Your task to perform on an android device: When is my next meeting? Image 0: 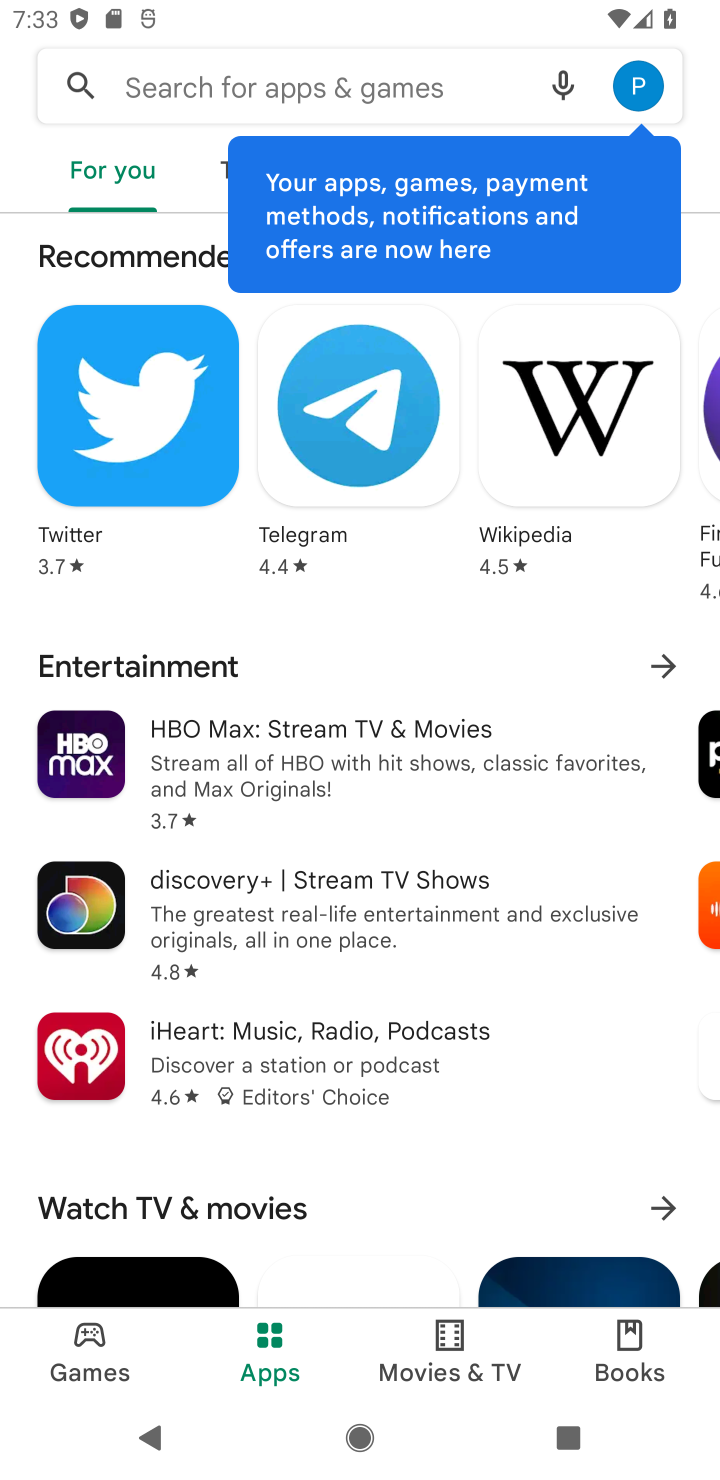
Step 0: press home button
Your task to perform on an android device: When is my next meeting? Image 1: 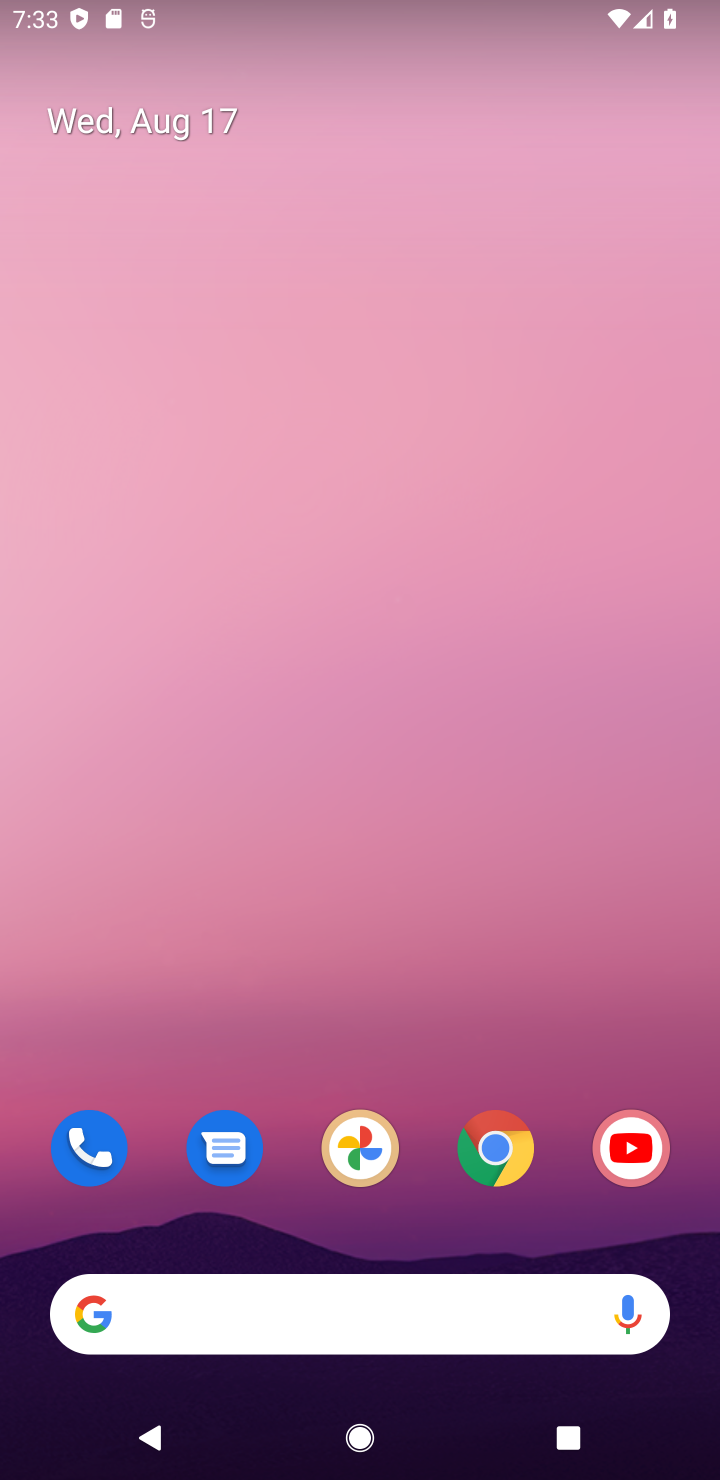
Step 1: drag from (568, 1227) to (552, 191)
Your task to perform on an android device: When is my next meeting? Image 2: 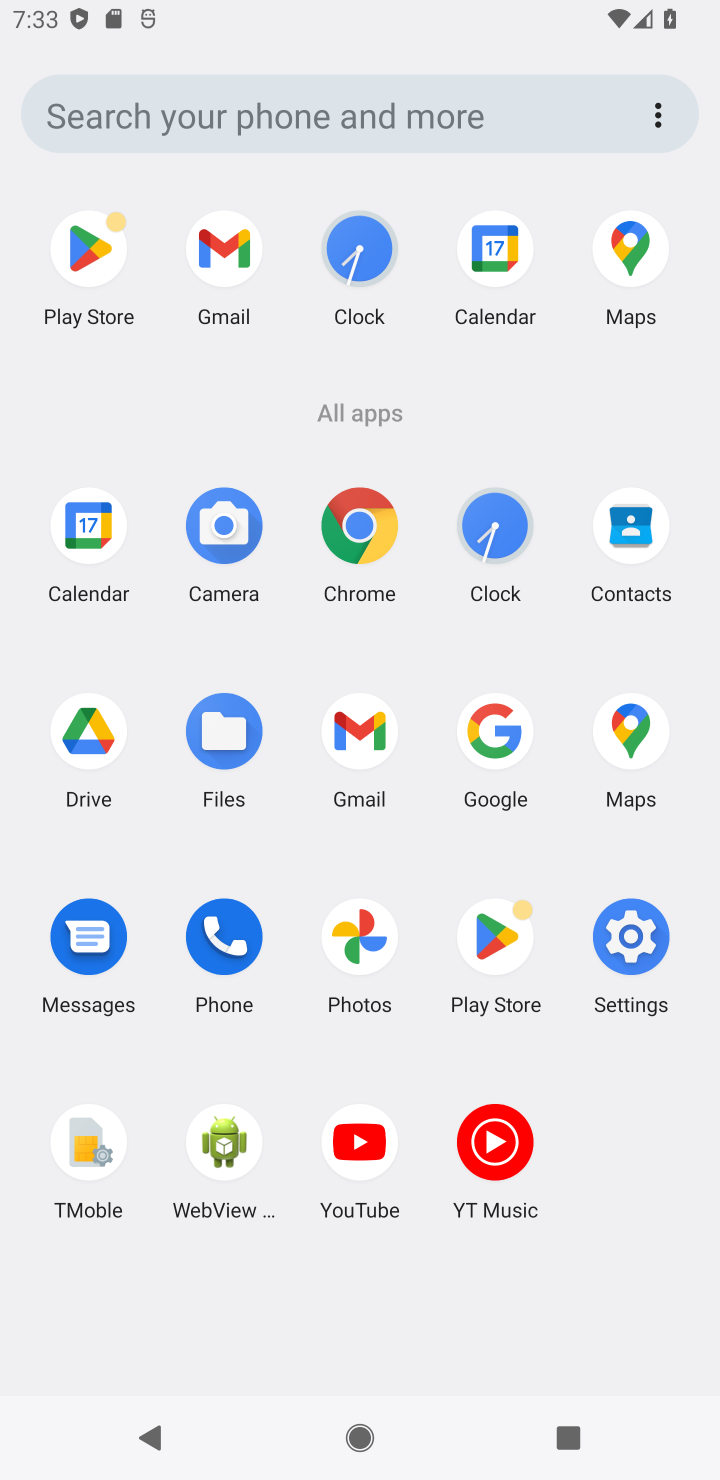
Step 2: click (87, 523)
Your task to perform on an android device: When is my next meeting? Image 3: 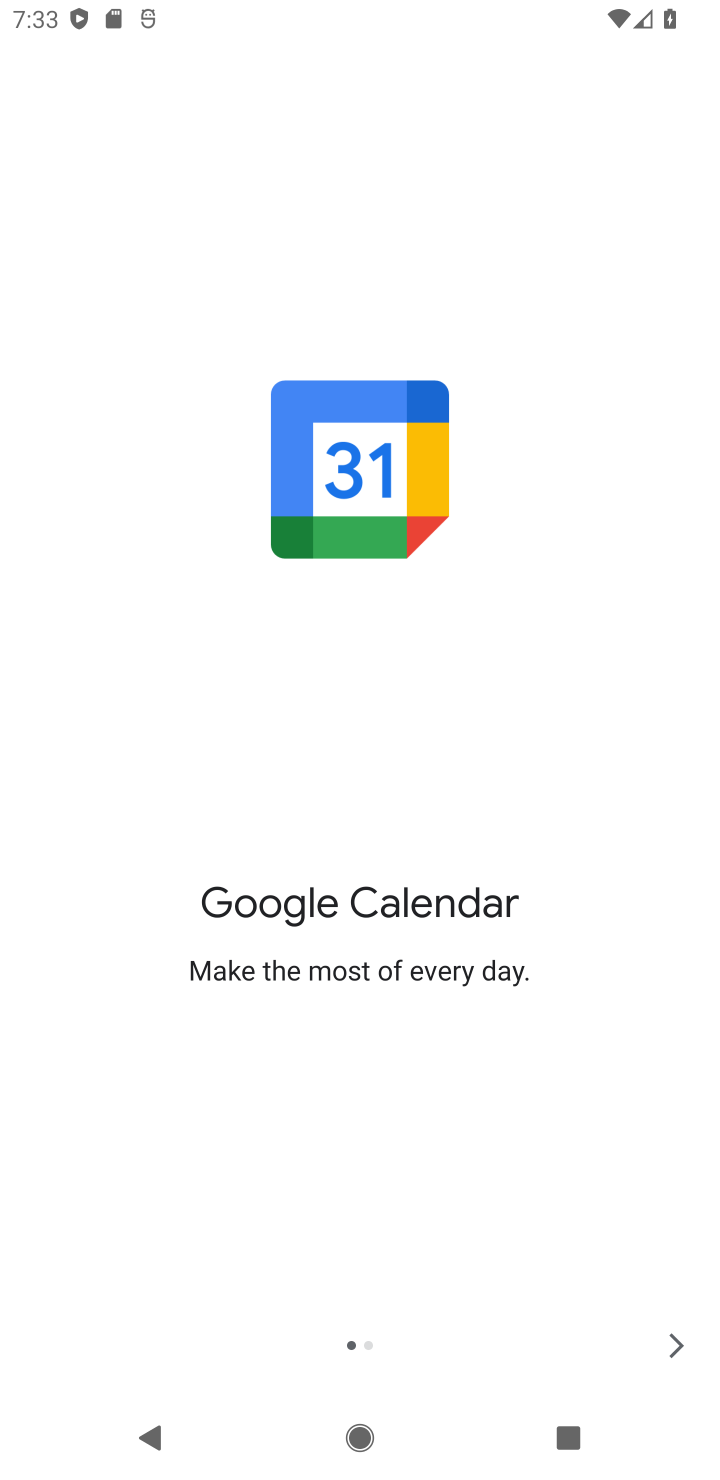
Step 3: click (680, 1348)
Your task to perform on an android device: When is my next meeting? Image 4: 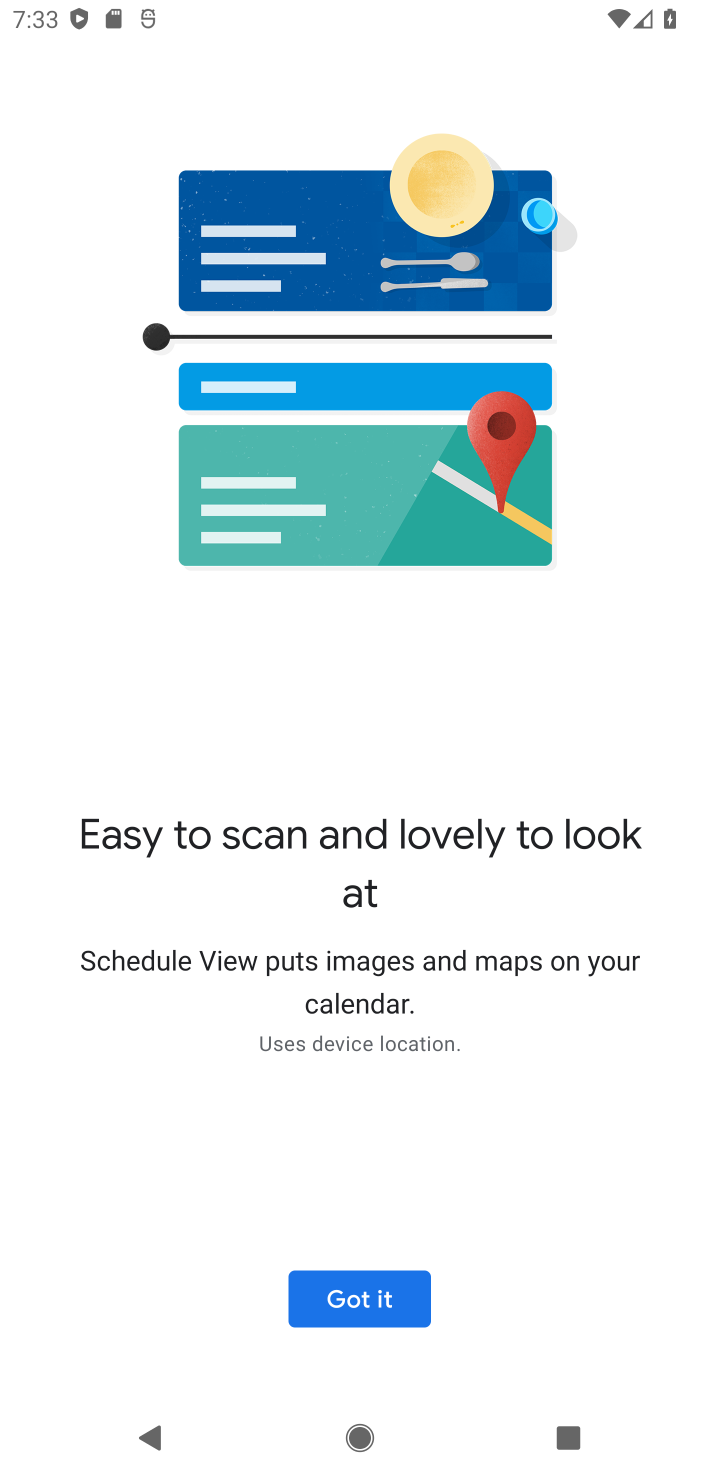
Step 4: click (363, 1300)
Your task to perform on an android device: When is my next meeting? Image 5: 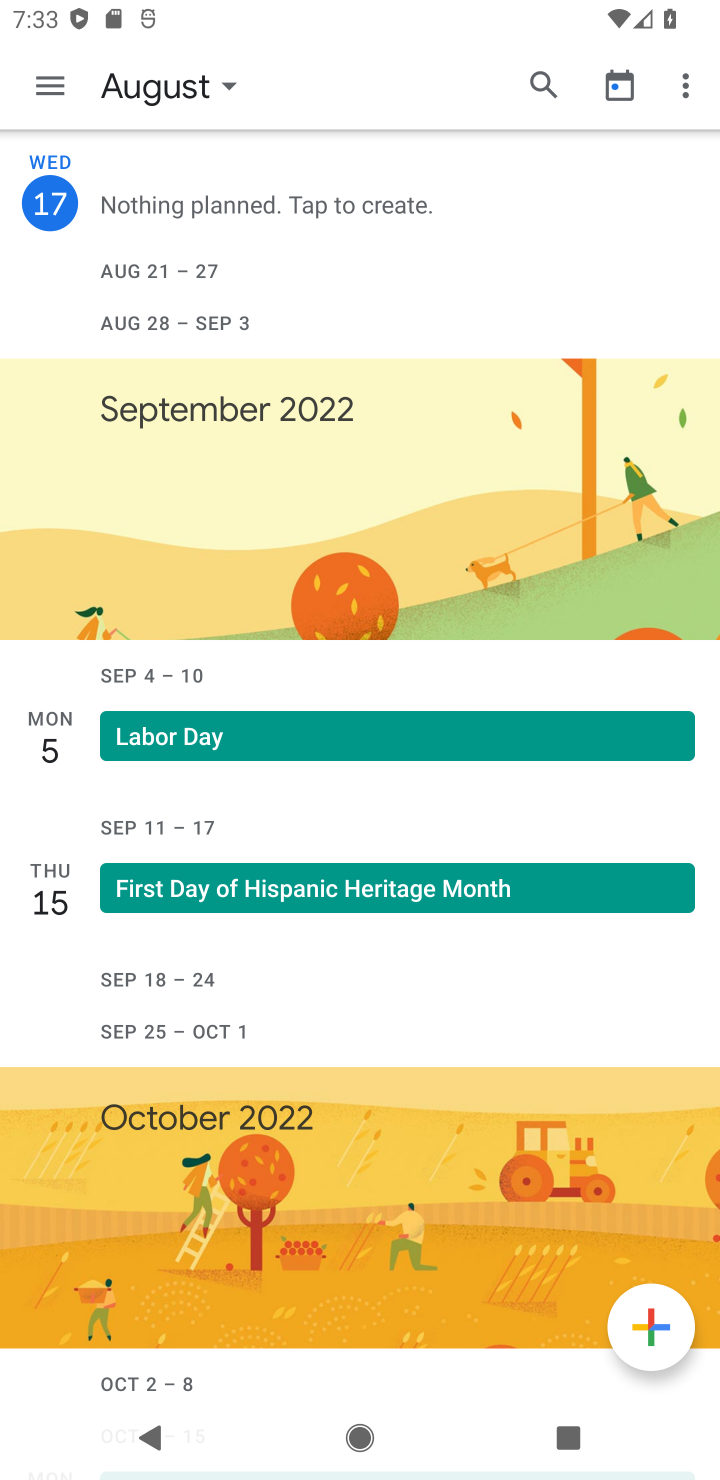
Step 5: task complete